Your task to perform on an android device: When is my next appointment? Image 0: 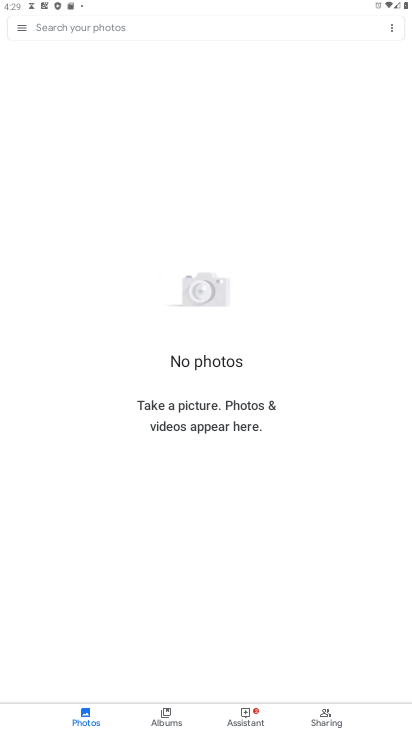
Step 0: press home button
Your task to perform on an android device: When is my next appointment? Image 1: 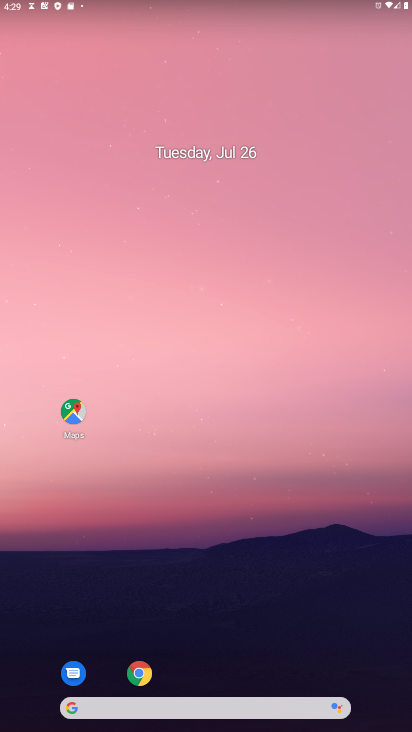
Step 1: drag from (178, 705) to (291, 23)
Your task to perform on an android device: When is my next appointment? Image 2: 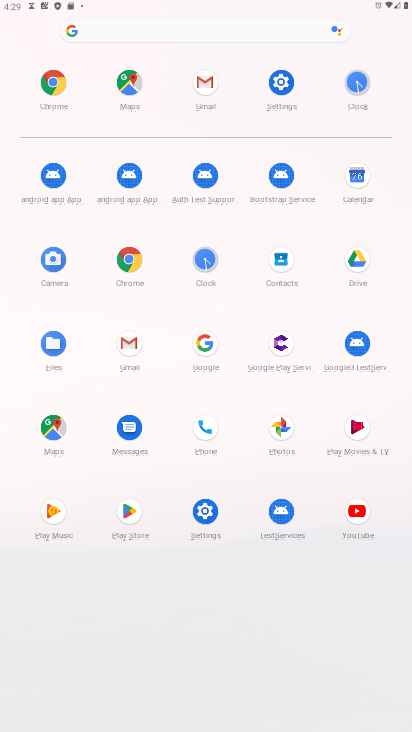
Step 2: click (358, 176)
Your task to perform on an android device: When is my next appointment? Image 3: 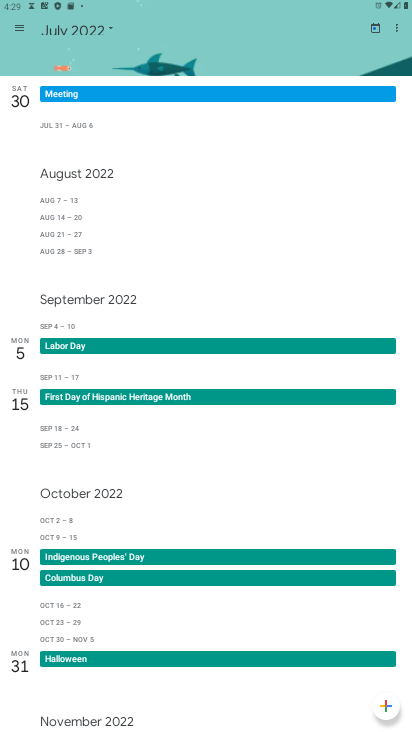
Step 3: click (377, 32)
Your task to perform on an android device: When is my next appointment? Image 4: 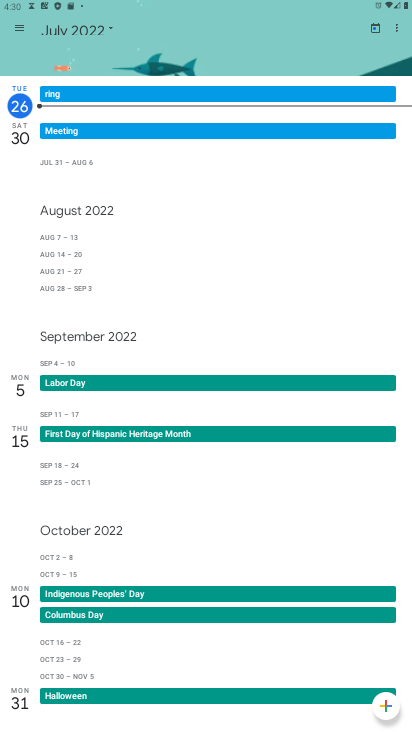
Step 4: click (108, 25)
Your task to perform on an android device: When is my next appointment? Image 5: 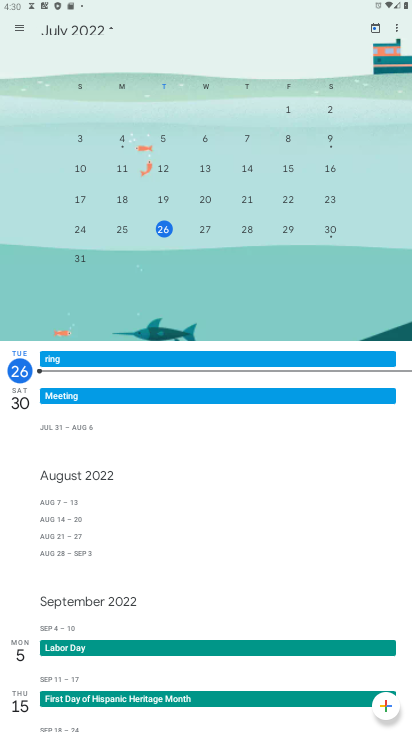
Step 5: click (333, 230)
Your task to perform on an android device: When is my next appointment? Image 6: 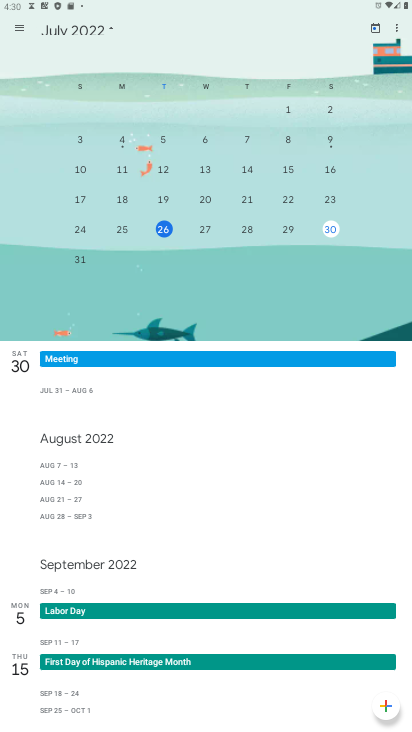
Step 6: click (14, 25)
Your task to perform on an android device: When is my next appointment? Image 7: 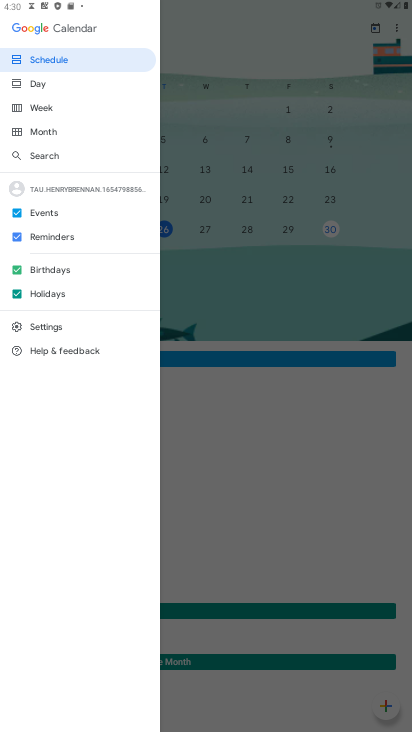
Step 7: click (47, 113)
Your task to perform on an android device: When is my next appointment? Image 8: 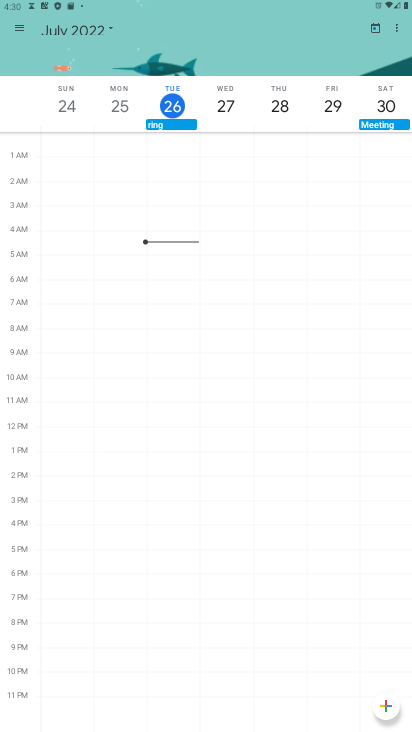
Step 8: task complete